Your task to perform on an android device: turn vacation reply on in the gmail app Image 0: 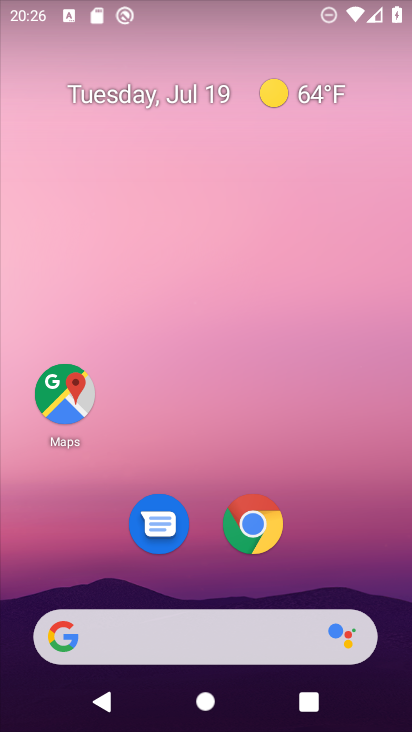
Step 0: drag from (208, 464) to (177, 26)
Your task to perform on an android device: turn vacation reply on in the gmail app Image 1: 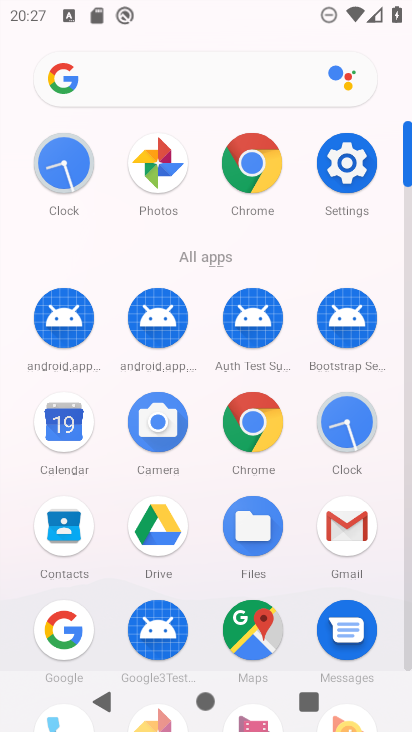
Step 1: click (345, 533)
Your task to perform on an android device: turn vacation reply on in the gmail app Image 2: 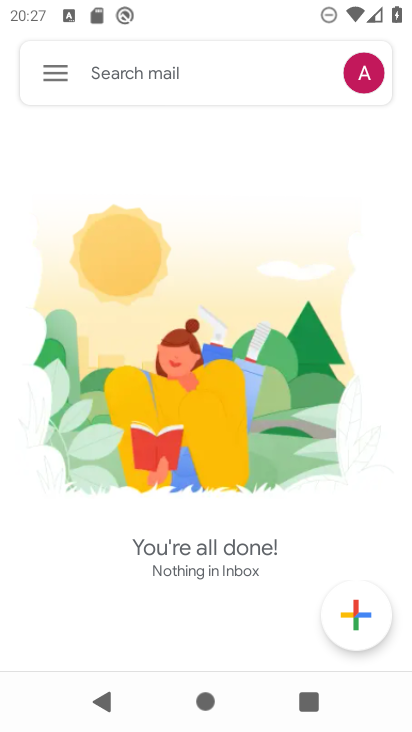
Step 2: click (56, 68)
Your task to perform on an android device: turn vacation reply on in the gmail app Image 3: 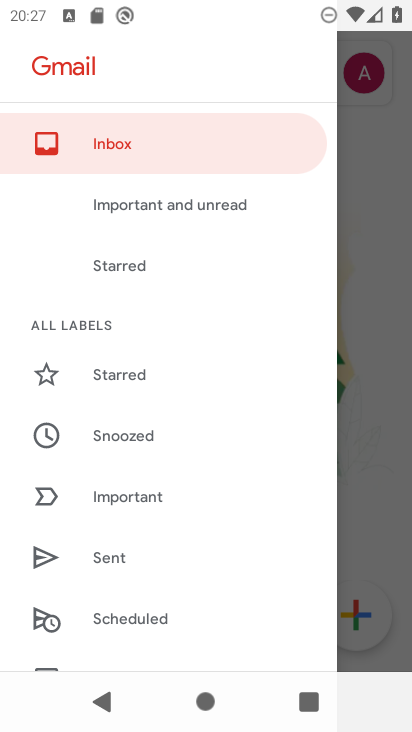
Step 3: drag from (207, 558) to (210, 15)
Your task to perform on an android device: turn vacation reply on in the gmail app Image 4: 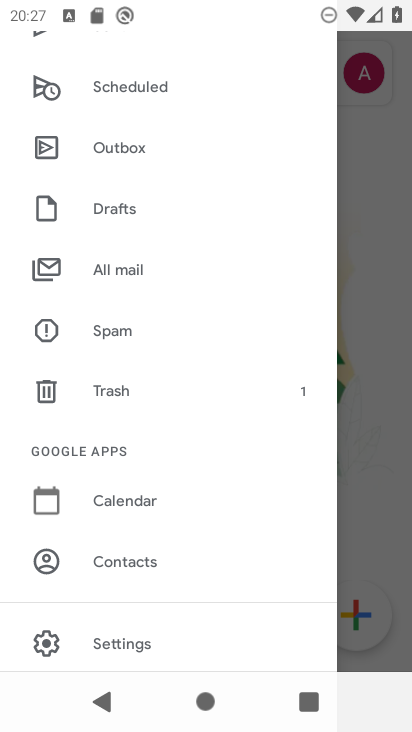
Step 4: click (147, 639)
Your task to perform on an android device: turn vacation reply on in the gmail app Image 5: 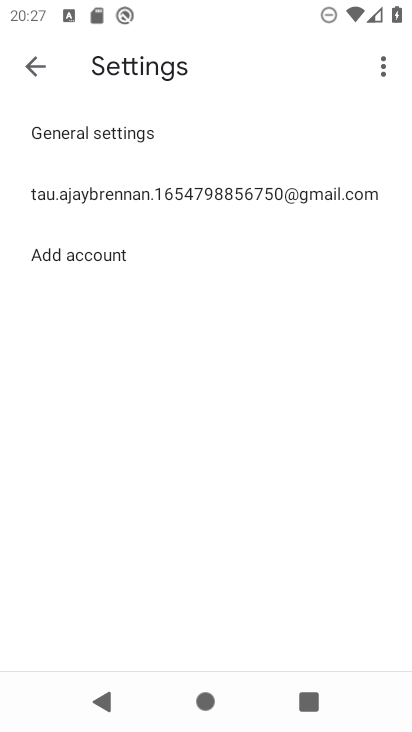
Step 5: click (279, 187)
Your task to perform on an android device: turn vacation reply on in the gmail app Image 6: 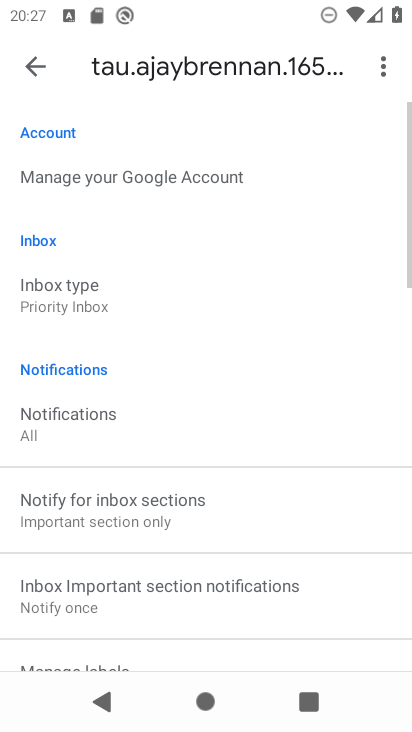
Step 6: drag from (241, 531) to (240, 120)
Your task to perform on an android device: turn vacation reply on in the gmail app Image 7: 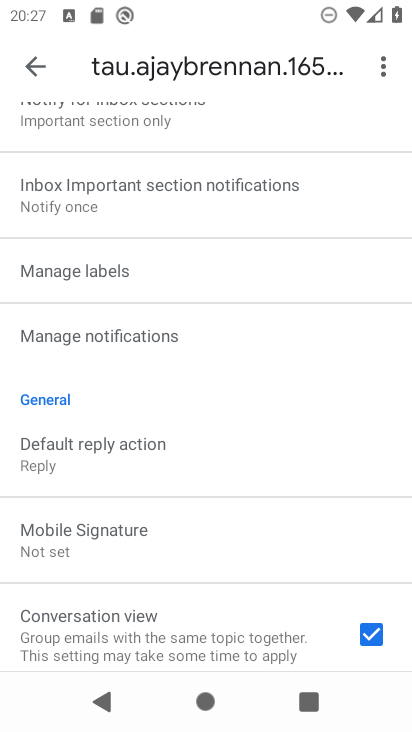
Step 7: drag from (240, 545) to (234, 219)
Your task to perform on an android device: turn vacation reply on in the gmail app Image 8: 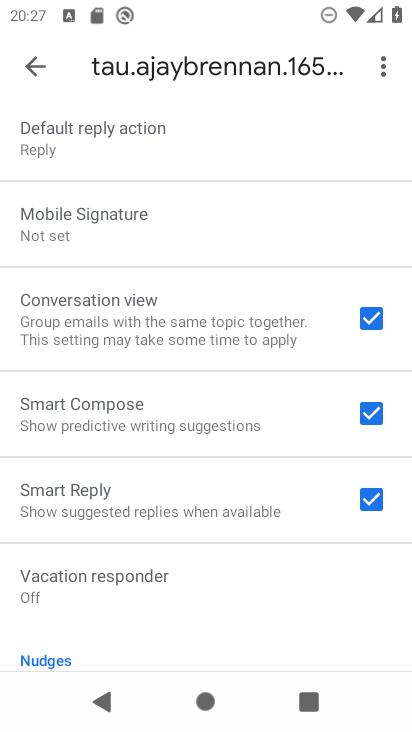
Step 8: click (225, 582)
Your task to perform on an android device: turn vacation reply on in the gmail app Image 9: 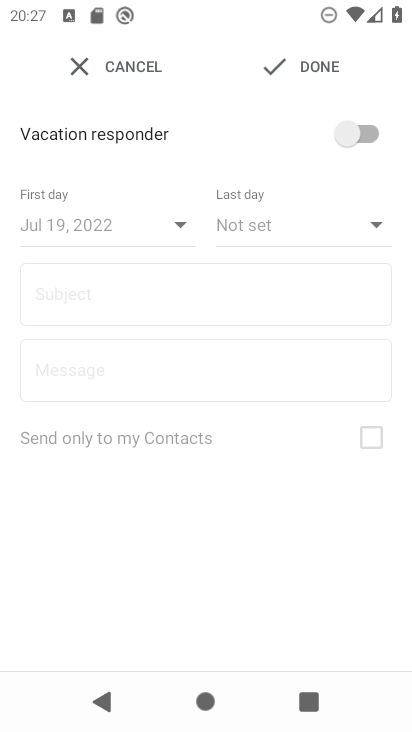
Step 9: click (361, 135)
Your task to perform on an android device: turn vacation reply on in the gmail app Image 10: 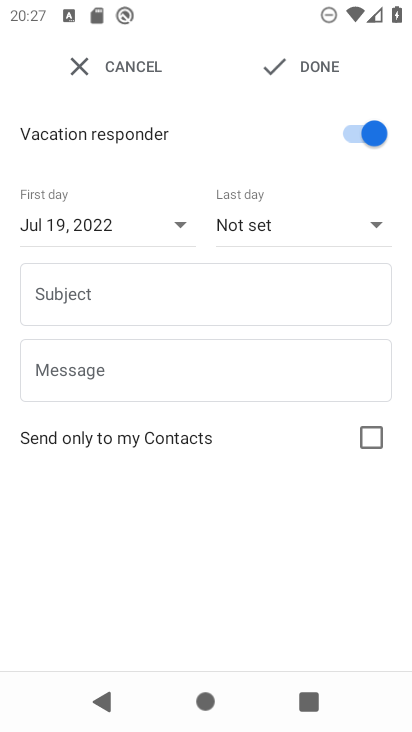
Step 10: task complete